Your task to perform on an android device: Go to notification settings Image 0: 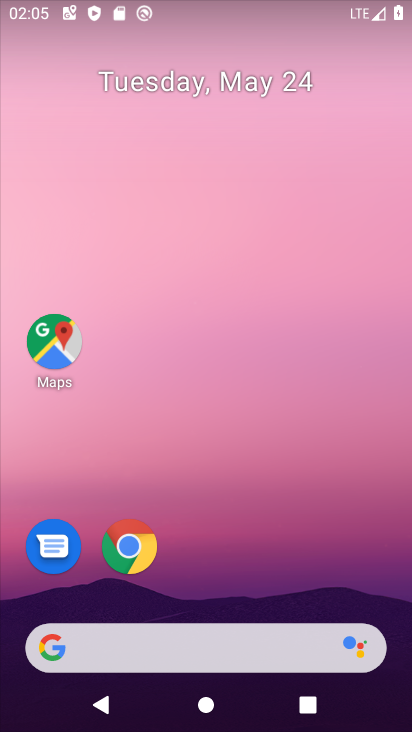
Step 0: drag from (175, 574) to (206, 49)
Your task to perform on an android device: Go to notification settings Image 1: 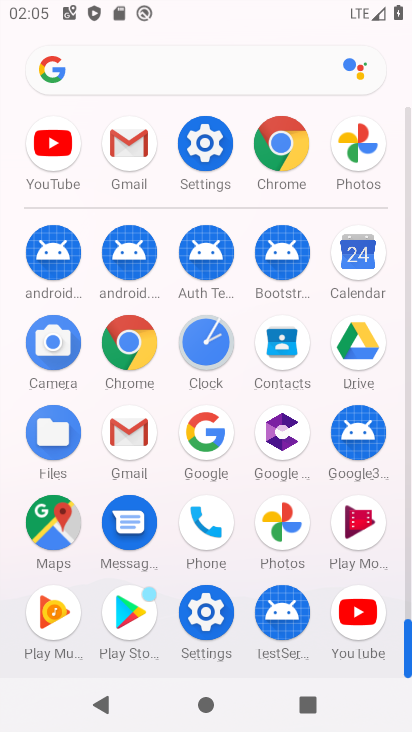
Step 1: click (200, 140)
Your task to perform on an android device: Go to notification settings Image 2: 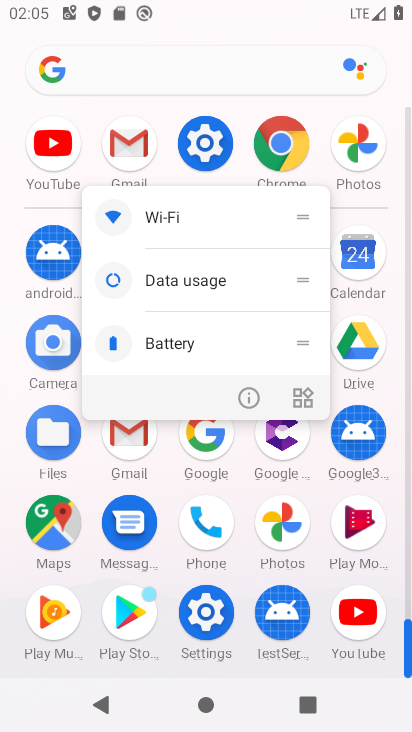
Step 2: click (246, 410)
Your task to perform on an android device: Go to notification settings Image 3: 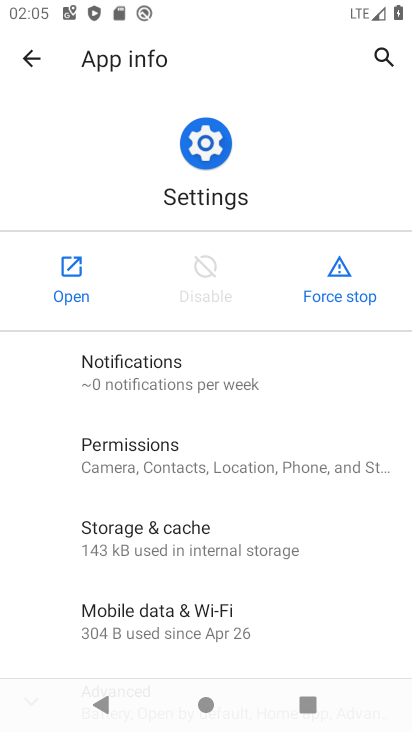
Step 3: click (80, 292)
Your task to perform on an android device: Go to notification settings Image 4: 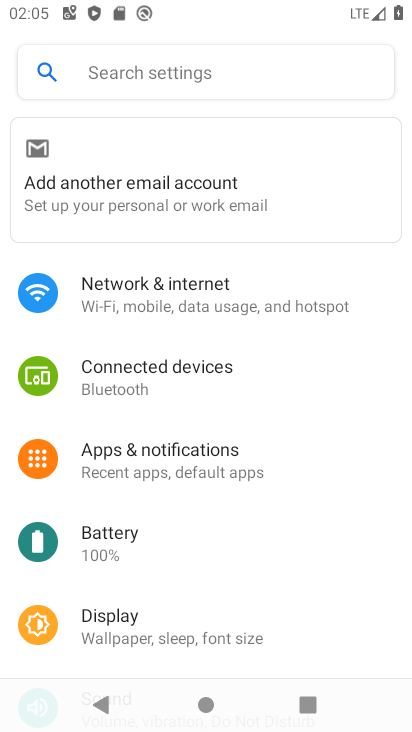
Step 4: drag from (207, 565) to (246, 130)
Your task to perform on an android device: Go to notification settings Image 5: 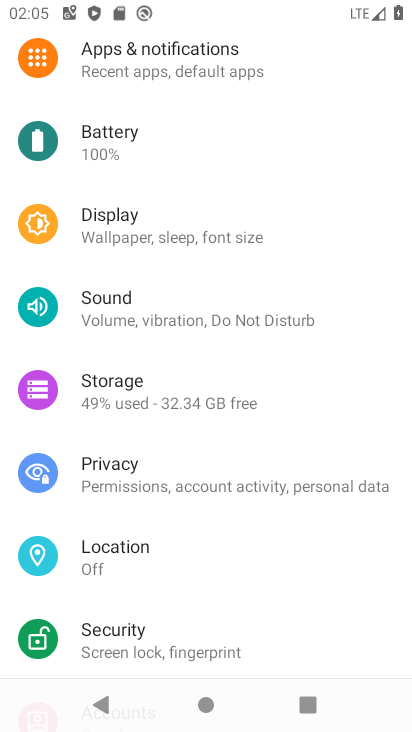
Step 5: drag from (226, 152) to (272, 438)
Your task to perform on an android device: Go to notification settings Image 6: 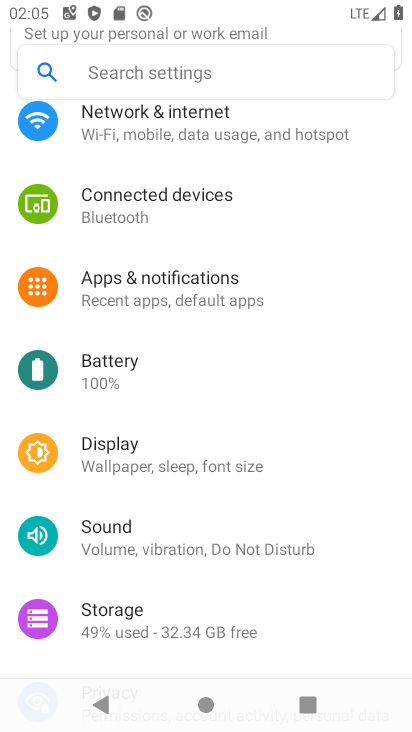
Step 6: click (195, 289)
Your task to perform on an android device: Go to notification settings Image 7: 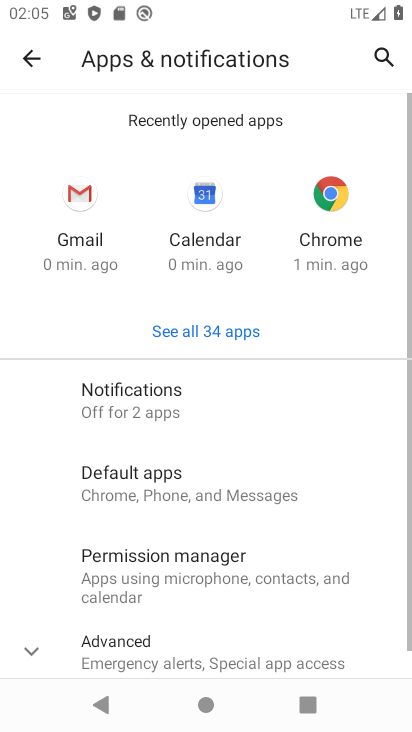
Step 7: drag from (211, 535) to (280, 99)
Your task to perform on an android device: Go to notification settings Image 8: 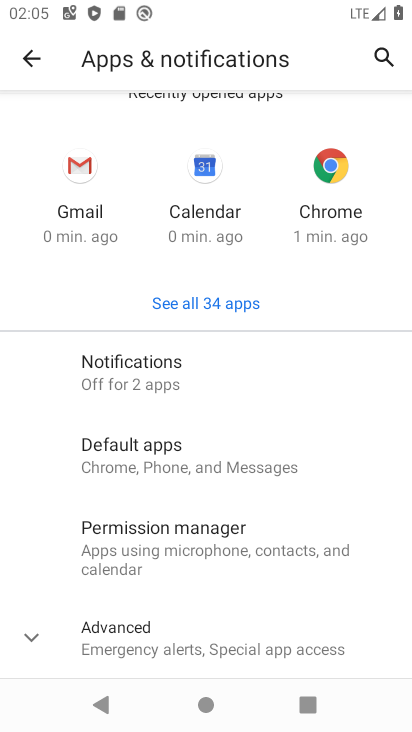
Step 8: click (177, 382)
Your task to perform on an android device: Go to notification settings Image 9: 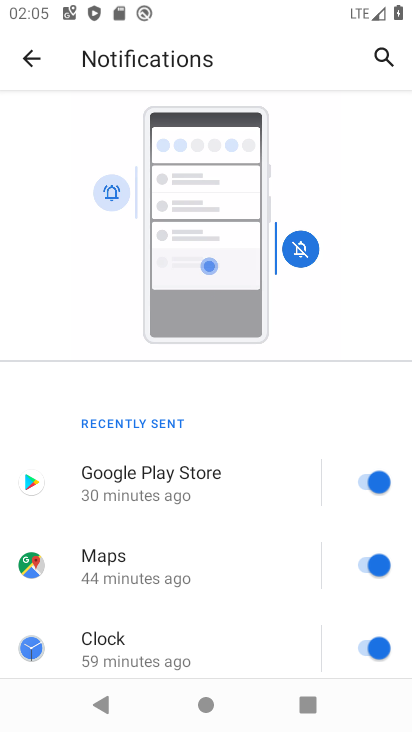
Step 9: drag from (206, 641) to (343, 118)
Your task to perform on an android device: Go to notification settings Image 10: 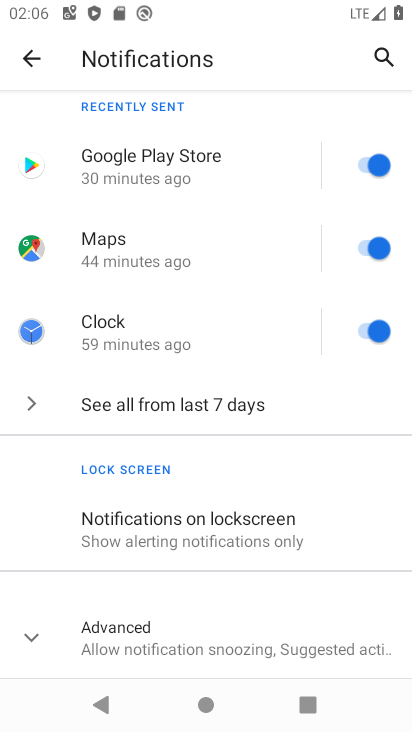
Step 10: click (382, 335)
Your task to perform on an android device: Go to notification settings Image 11: 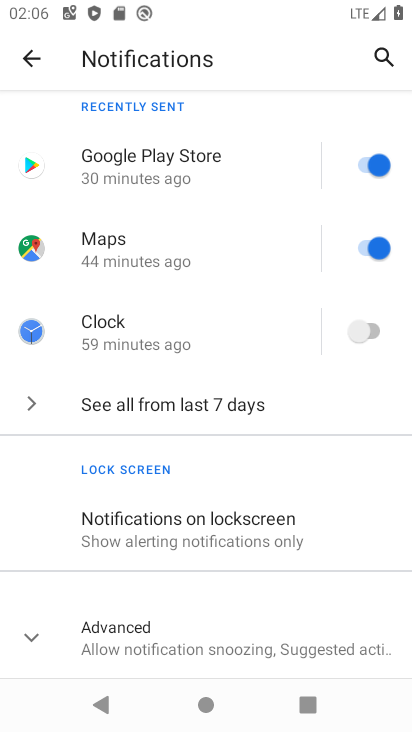
Step 11: task complete